Your task to perform on an android device: move a message to another label in the gmail app Image 0: 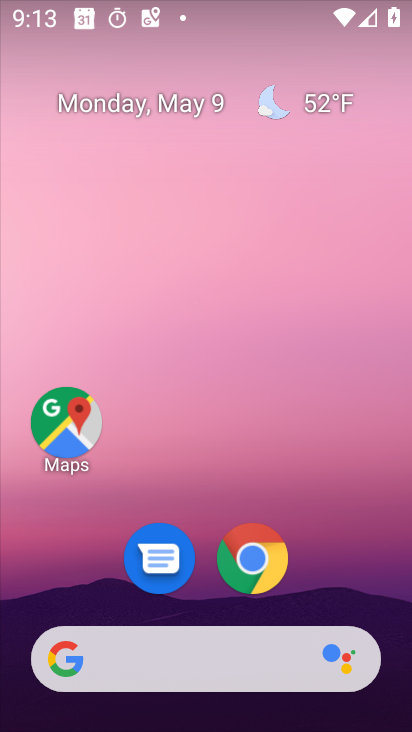
Step 0: drag from (182, 593) to (254, 128)
Your task to perform on an android device: move a message to another label in the gmail app Image 1: 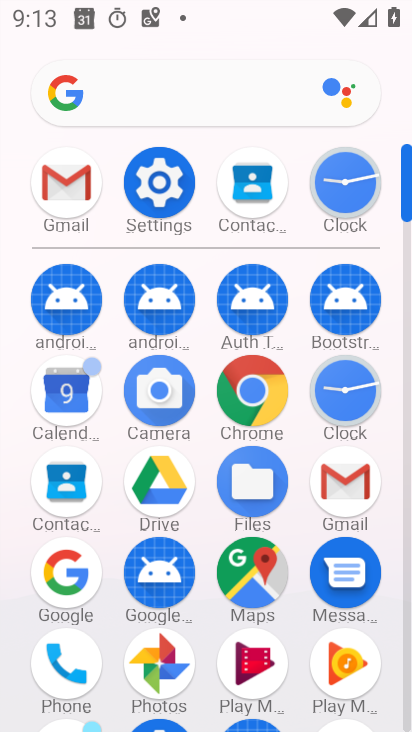
Step 1: click (62, 165)
Your task to perform on an android device: move a message to another label in the gmail app Image 2: 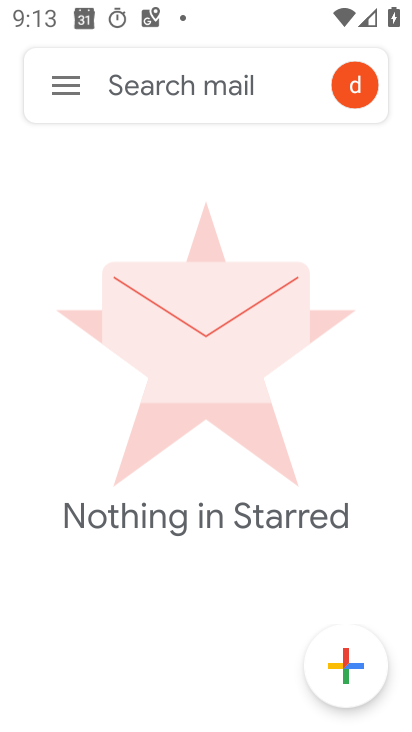
Step 2: click (70, 101)
Your task to perform on an android device: move a message to another label in the gmail app Image 3: 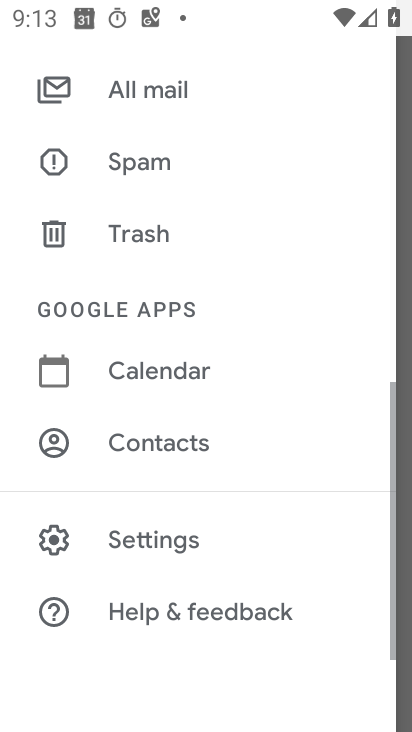
Step 3: click (191, 83)
Your task to perform on an android device: move a message to another label in the gmail app Image 4: 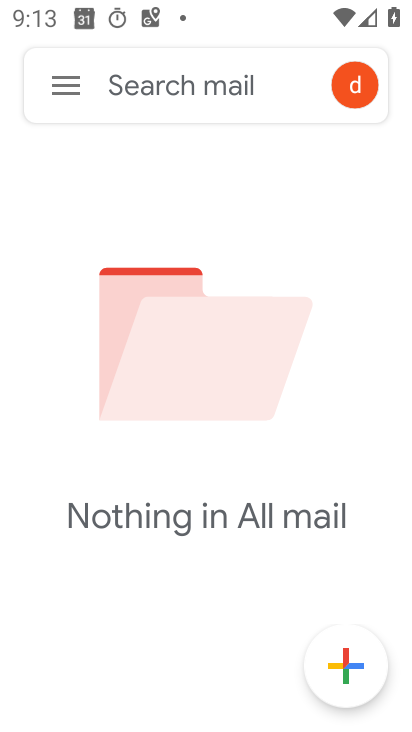
Step 4: task complete